Your task to perform on an android device: open chrome and create a bookmark for the current page Image 0: 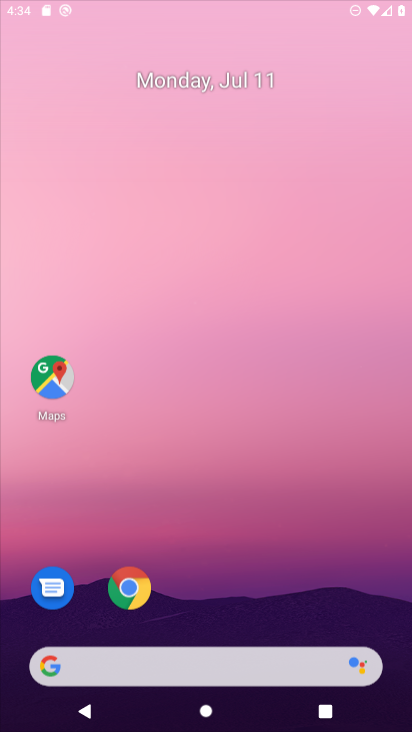
Step 0: press home button
Your task to perform on an android device: open chrome and create a bookmark for the current page Image 1: 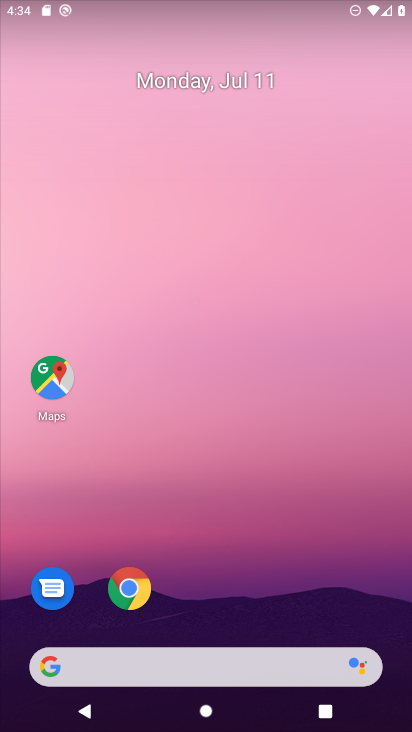
Step 1: drag from (218, 569) to (263, 85)
Your task to perform on an android device: open chrome and create a bookmark for the current page Image 2: 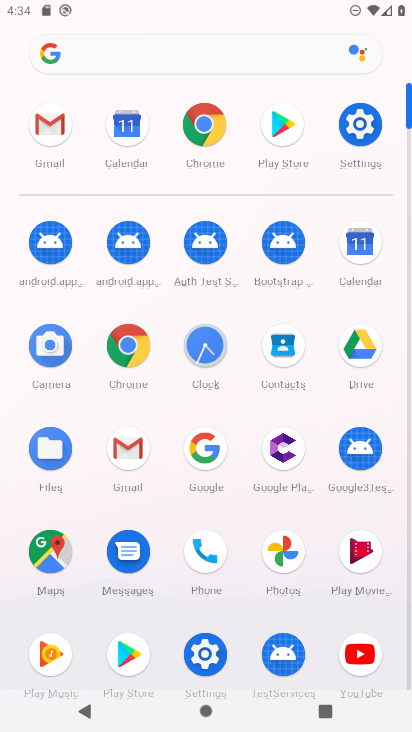
Step 2: click (206, 130)
Your task to perform on an android device: open chrome and create a bookmark for the current page Image 3: 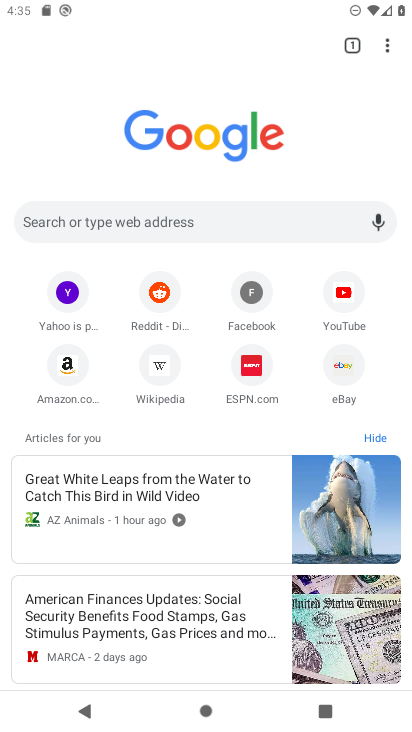
Step 3: drag from (355, 44) to (404, 50)
Your task to perform on an android device: open chrome and create a bookmark for the current page Image 4: 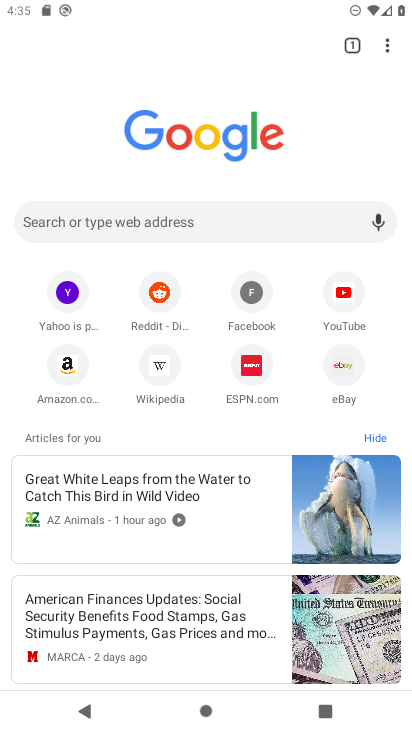
Step 4: click (383, 48)
Your task to perform on an android device: open chrome and create a bookmark for the current page Image 5: 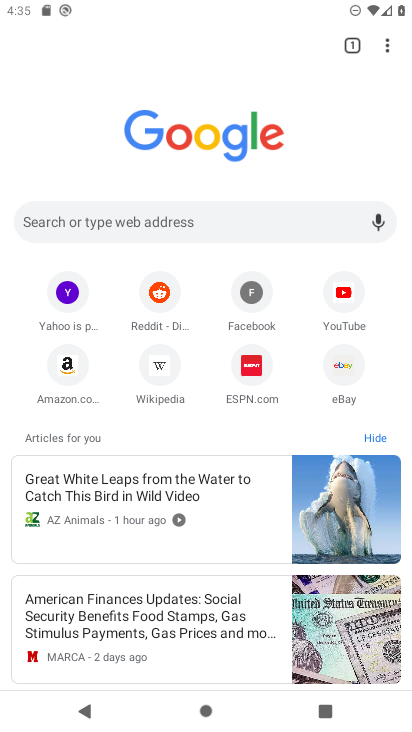
Step 5: task complete